Your task to perform on an android device: Go to Yahoo.com Image 0: 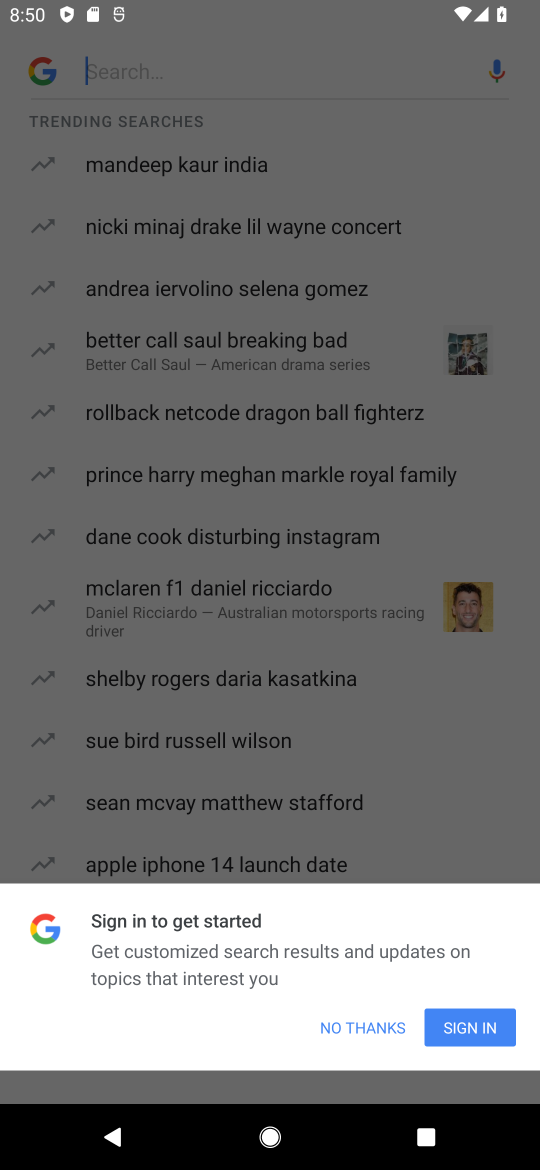
Step 0: press back button
Your task to perform on an android device: Go to Yahoo.com Image 1: 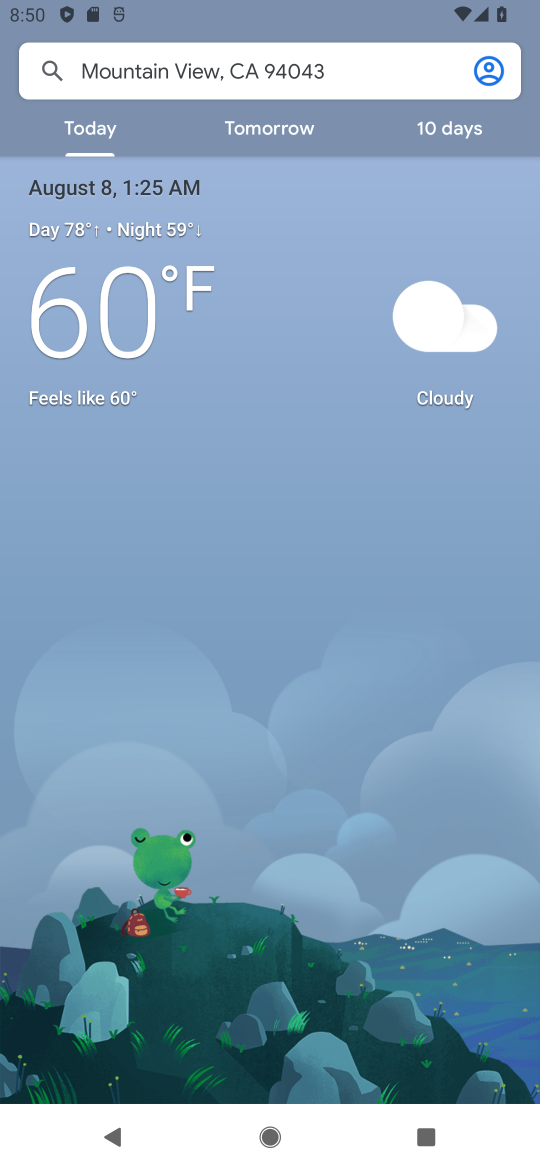
Step 1: press back button
Your task to perform on an android device: Go to Yahoo.com Image 2: 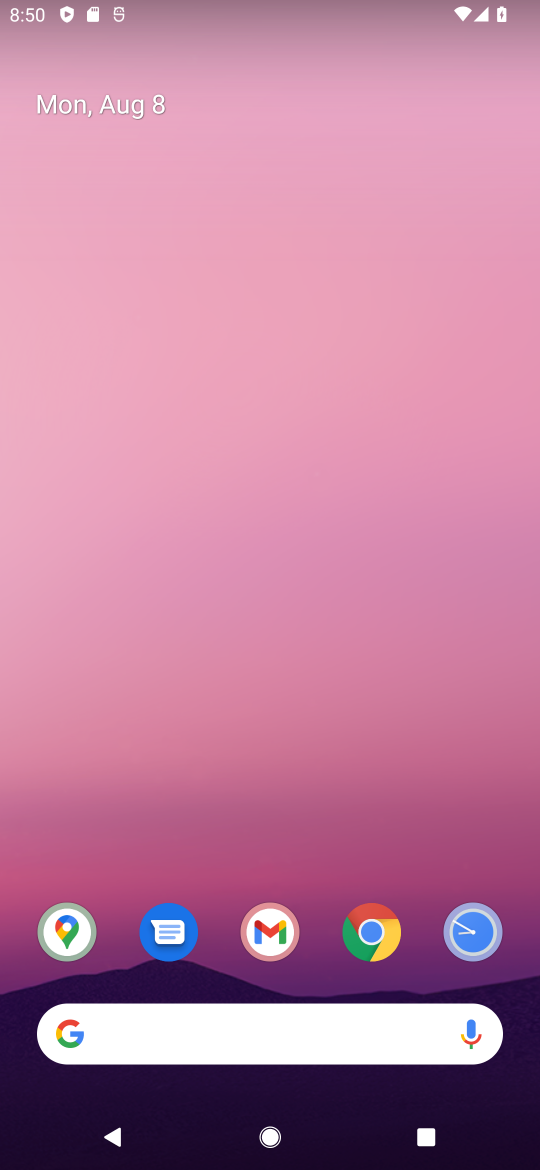
Step 2: click (372, 945)
Your task to perform on an android device: Go to Yahoo.com Image 3: 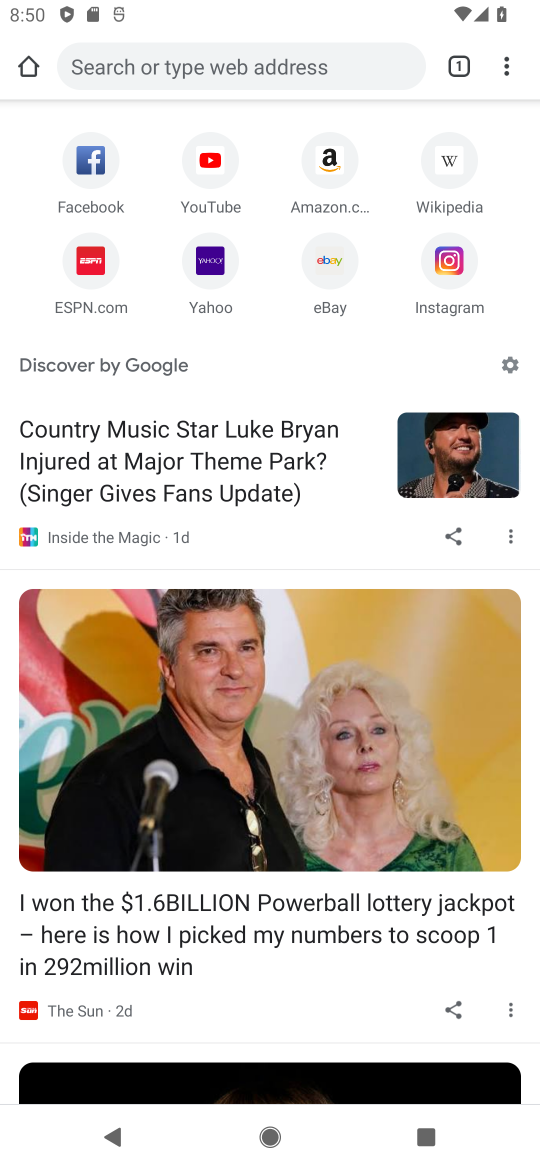
Step 3: click (210, 264)
Your task to perform on an android device: Go to Yahoo.com Image 4: 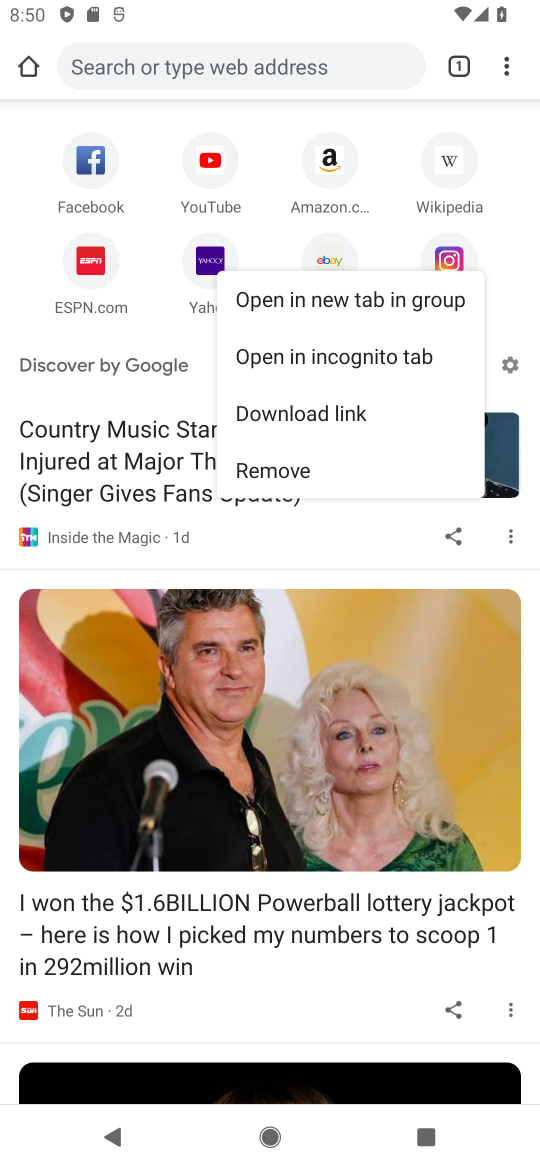
Step 4: click (205, 261)
Your task to perform on an android device: Go to Yahoo.com Image 5: 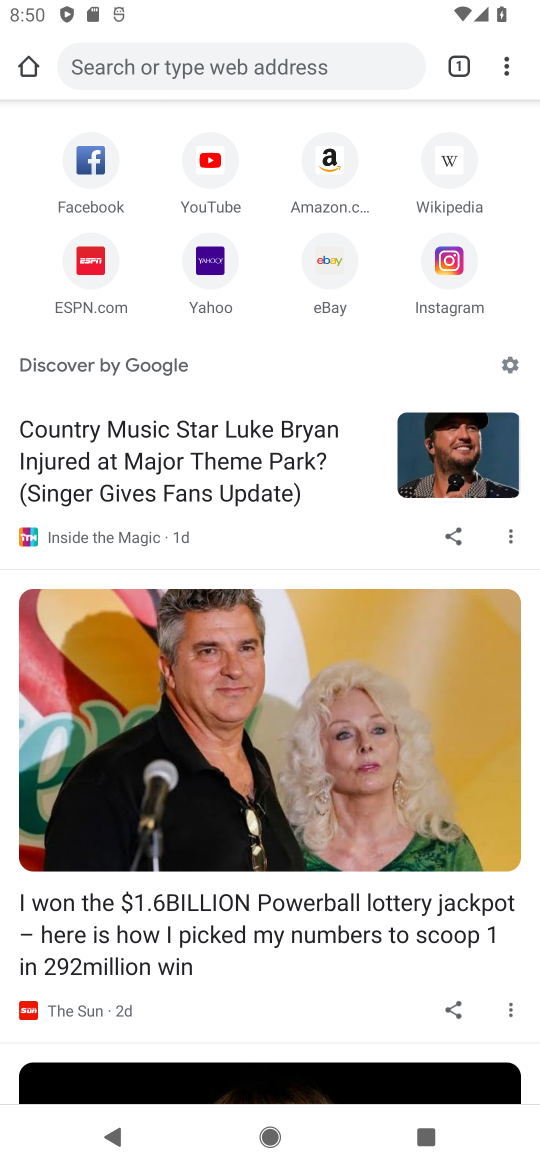
Step 5: click (208, 261)
Your task to perform on an android device: Go to Yahoo.com Image 6: 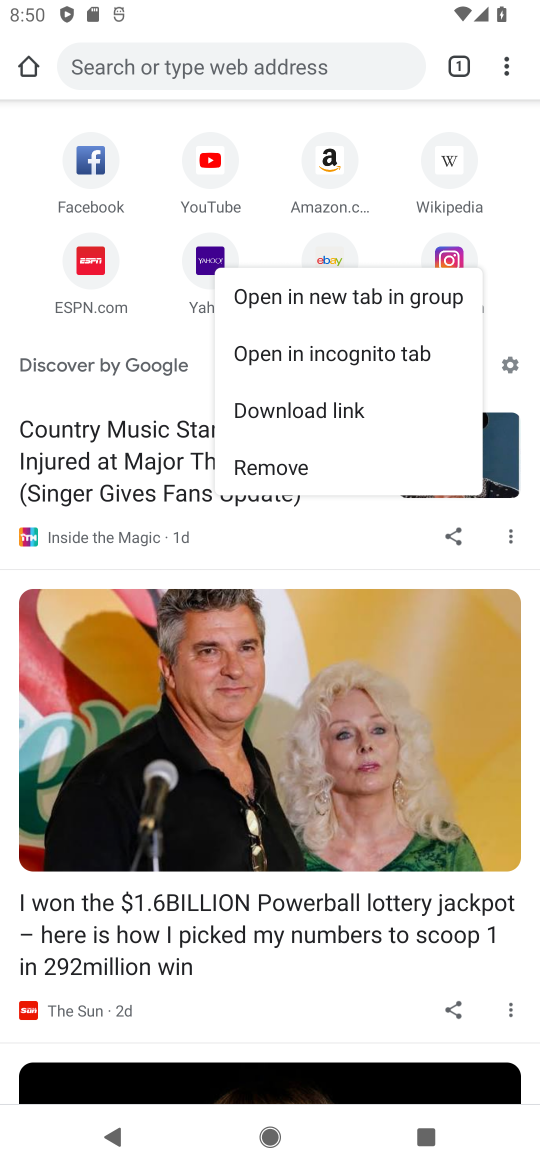
Step 6: click (196, 270)
Your task to perform on an android device: Go to Yahoo.com Image 7: 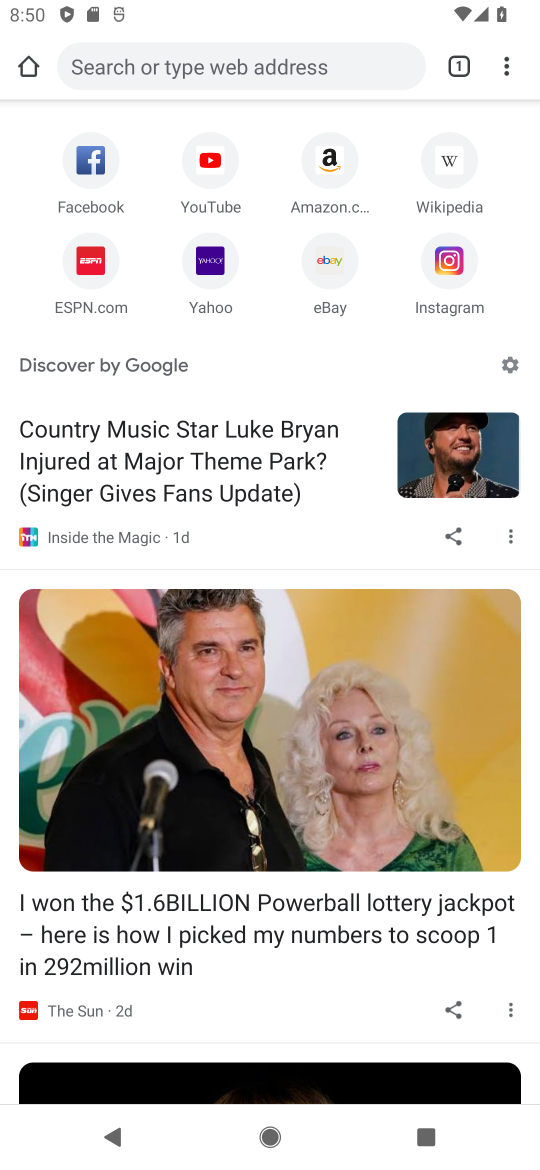
Step 7: click (236, 262)
Your task to perform on an android device: Go to Yahoo.com Image 8: 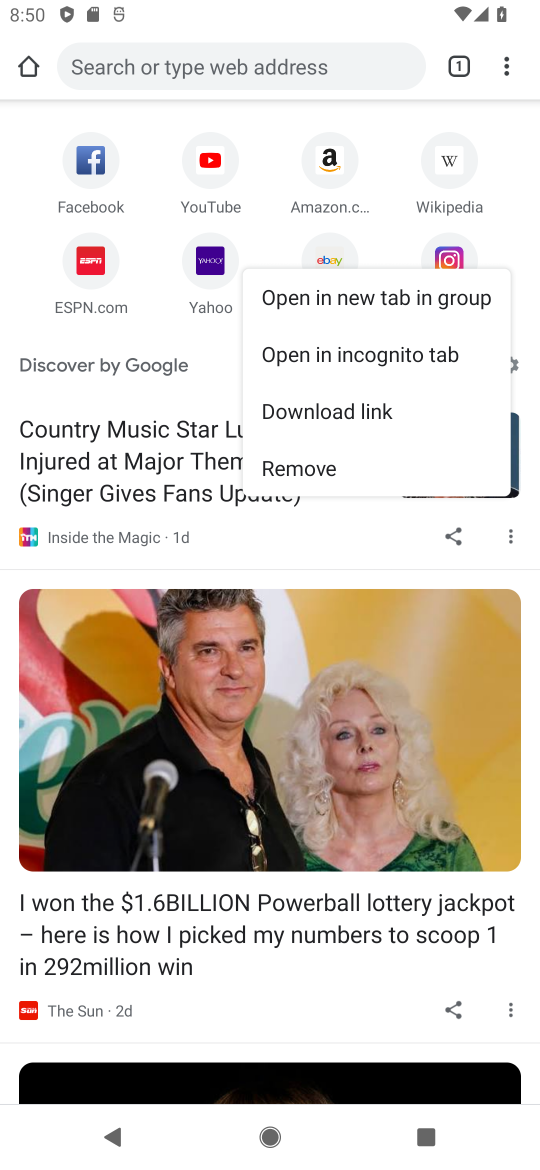
Step 8: click (195, 268)
Your task to perform on an android device: Go to Yahoo.com Image 9: 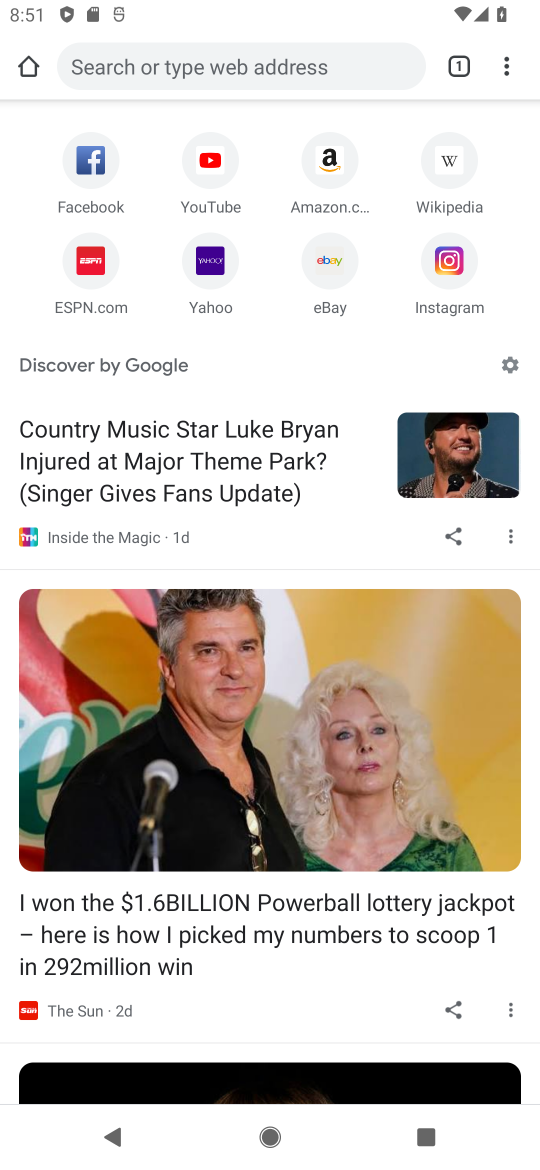
Step 9: click (212, 257)
Your task to perform on an android device: Go to Yahoo.com Image 10: 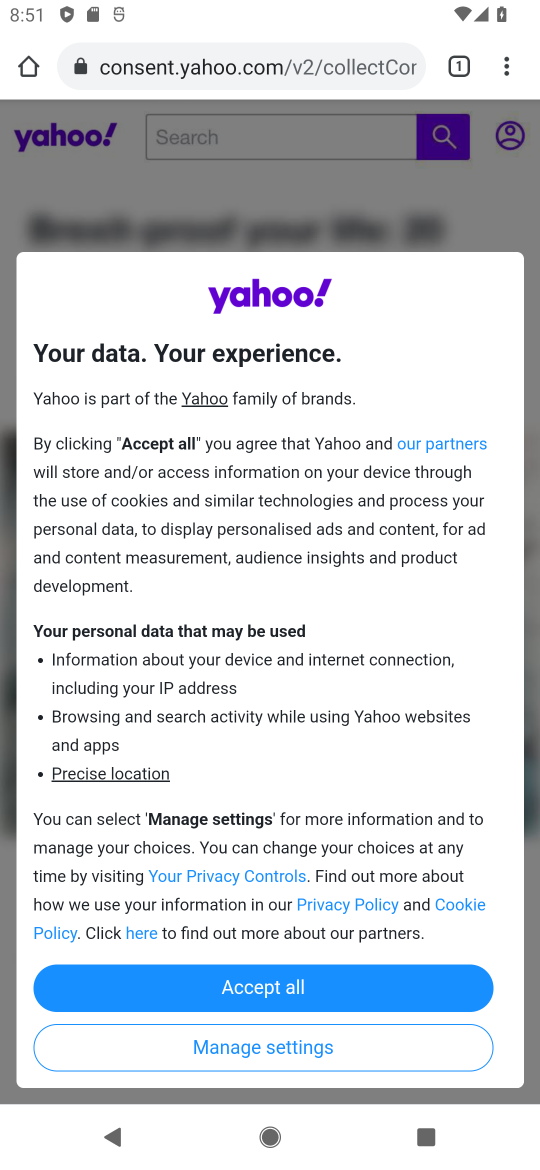
Step 10: task complete